Your task to perform on an android device: turn smart compose on in the gmail app Image 0: 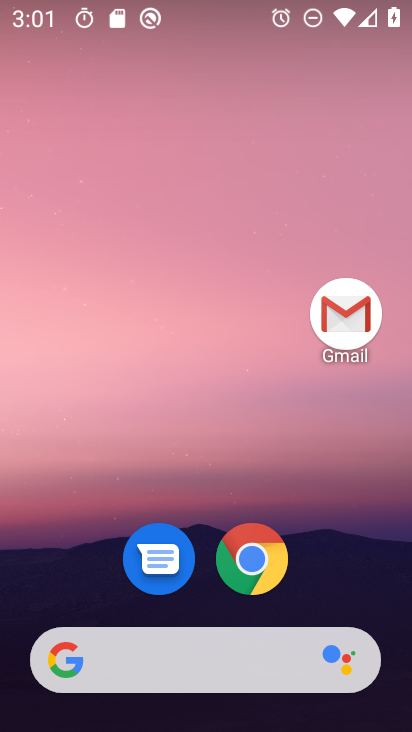
Step 0: drag from (343, 564) to (373, 146)
Your task to perform on an android device: turn smart compose on in the gmail app Image 1: 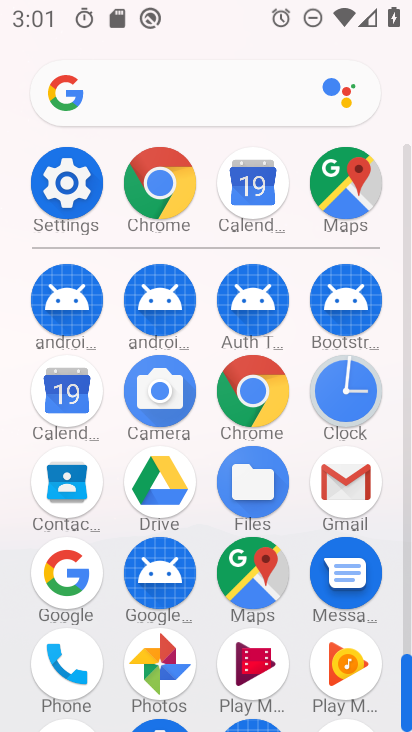
Step 1: click (337, 473)
Your task to perform on an android device: turn smart compose on in the gmail app Image 2: 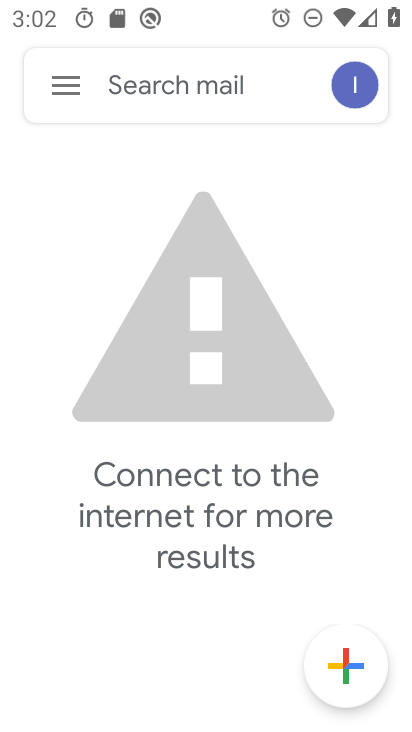
Step 2: click (70, 102)
Your task to perform on an android device: turn smart compose on in the gmail app Image 3: 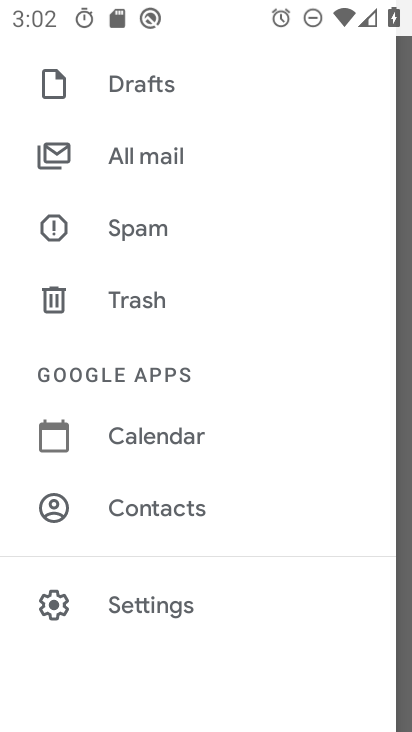
Step 3: click (146, 603)
Your task to perform on an android device: turn smart compose on in the gmail app Image 4: 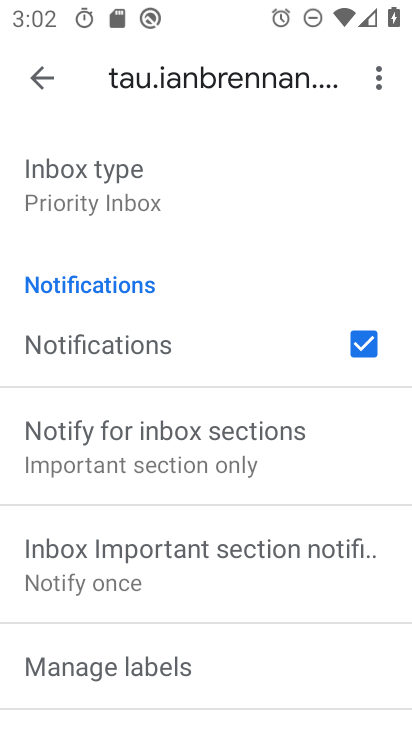
Step 4: task complete